Your task to perform on an android device: Open Google Image 0: 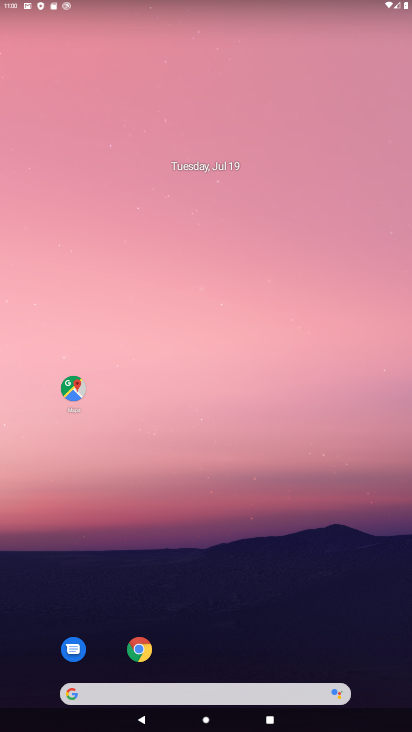
Step 0: drag from (212, 604) to (237, 107)
Your task to perform on an android device: Open Google Image 1: 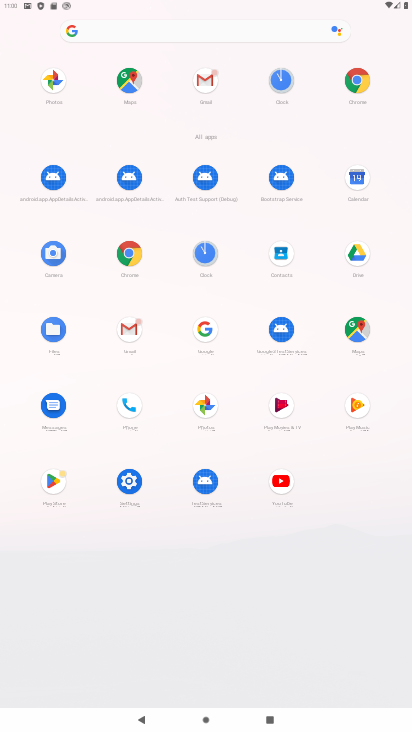
Step 1: click (197, 327)
Your task to perform on an android device: Open Google Image 2: 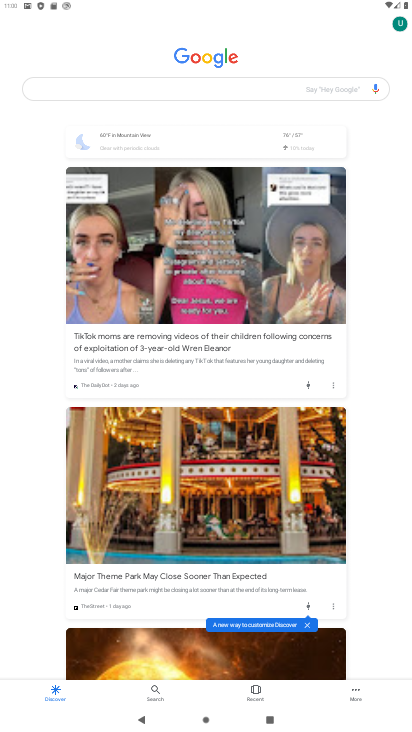
Step 2: task complete